Your task to perform on an android device: Open settings on Google Maps Image 0: 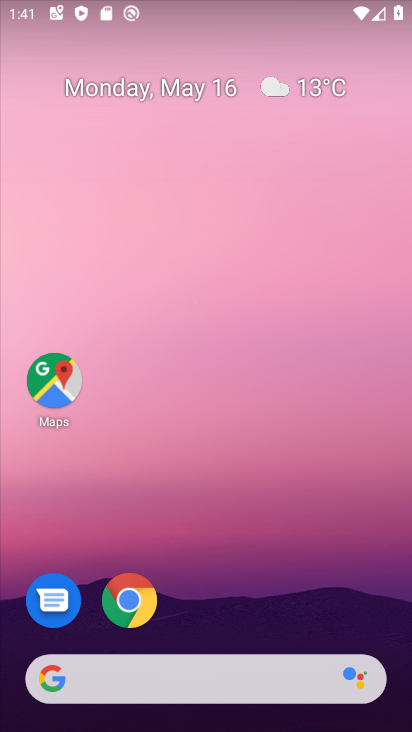
Step 0: drag from (266, 606) to (279, 42)
Your task to perform on an android device: Open settings on Google Maps Image 1: 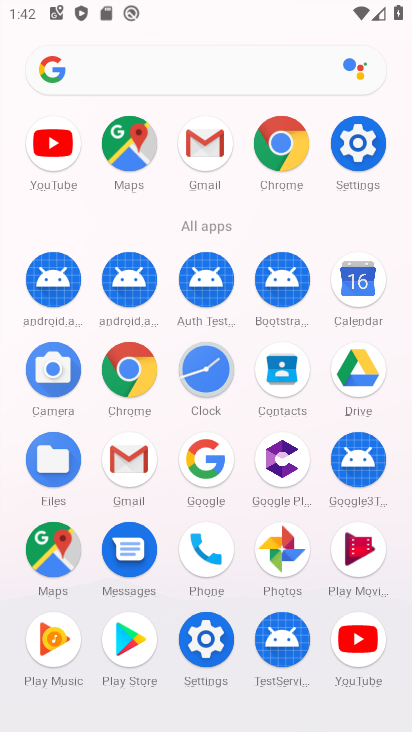
Step 1: click (53, 555)
Your task to perform on an android device: Open settings on Google Maps Image 2: 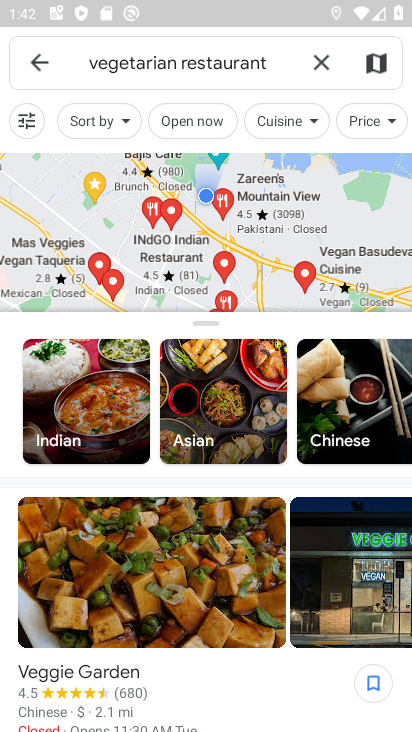
Step 2: click (46, 68)
Your task to perform on an android device: Open settings on Google Maps Image 3: 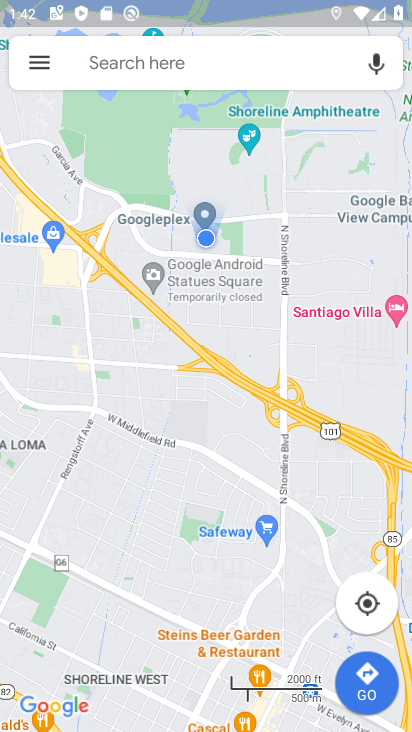
Step 3: click (47, 67)
Your task to perform on an android device: Open settings on Google Maps Image 4: 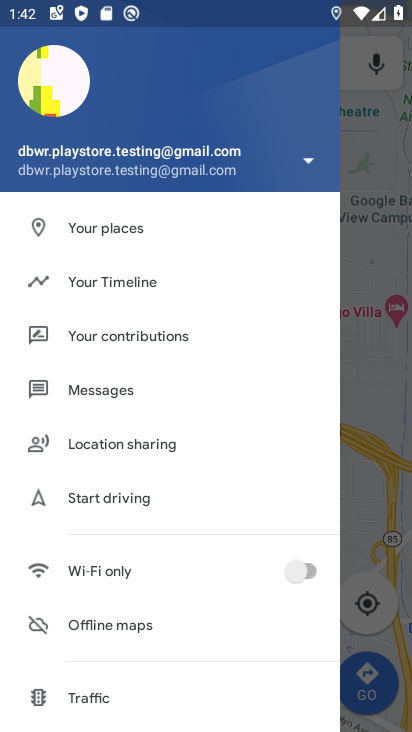
Step 4: drag from (109, 624) to (127, 254)
Your task to perform on an android device: Open settings on Google Maps Image 5: 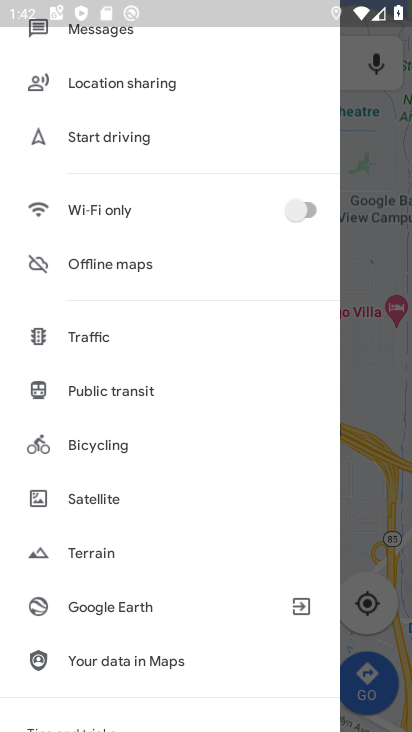
Step 5: drag from (122, 688) to (137, 359)
Your task to perform on an android device: Open settings on Google Maps Image 6: 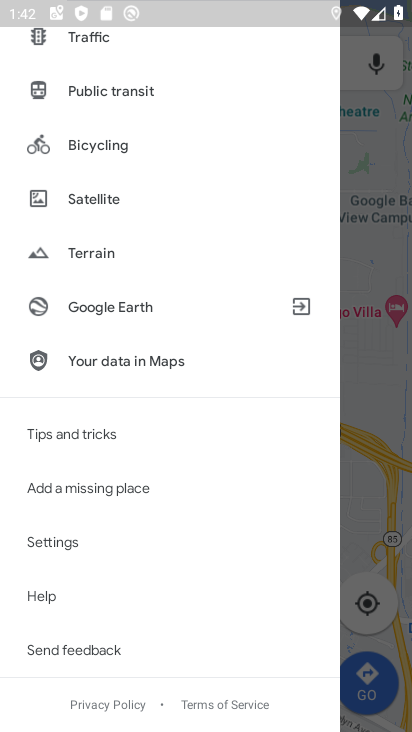
Step 6: click (78, 551)
Your task to perform on an android device: Open settings on Google Maps Image 7: 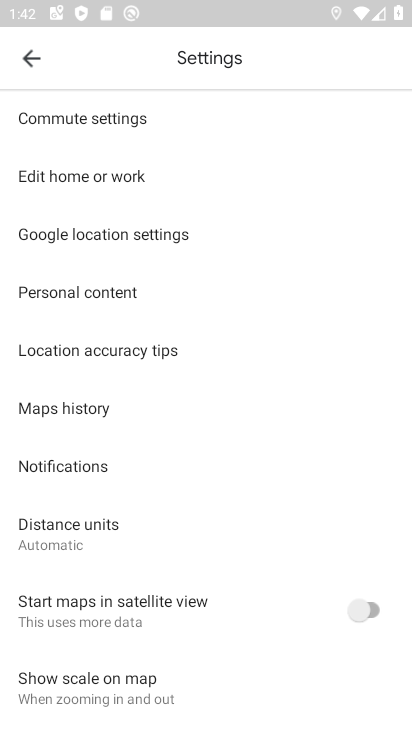
Step 7: task complete